Your task to perform on an android device: toggle javascript in the chrome app Image 0: 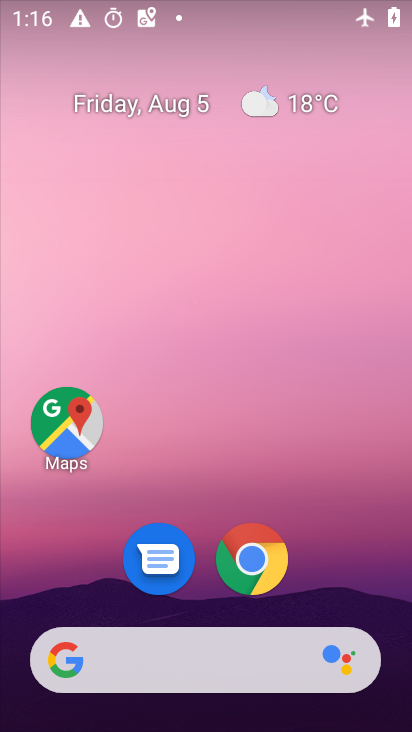
Step 0: click (271, 555)
Your task to perform on an android device: toggle javascript in the chrome app Image 1: 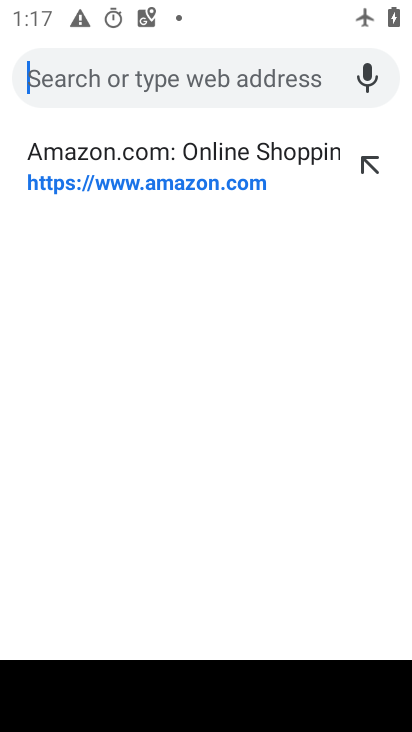
Step 1: task complete